Your task to perform on an android device: turn on showing notifications on the lock screen Image 0: 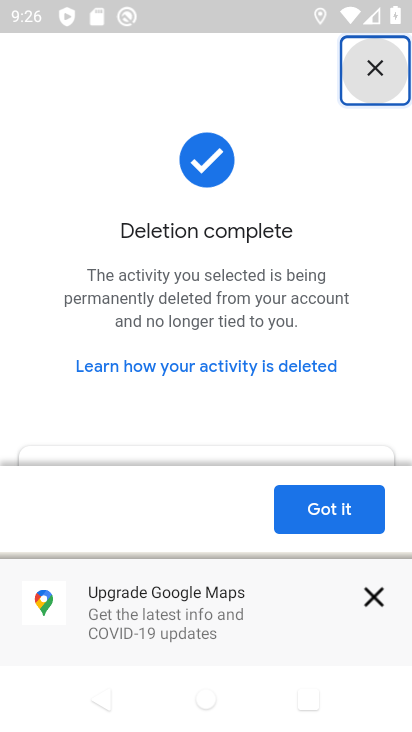
Step 0: press home button
Your task to perform on an android device: turn on showing notifications on the lock screen Image 1: 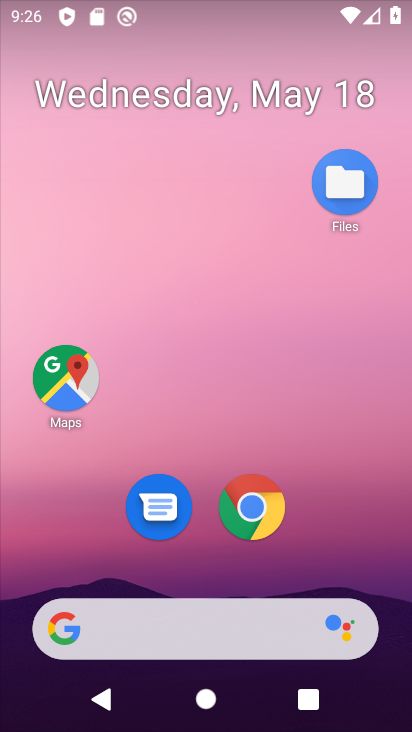
Step 1: drag from (357, 528) to (308, 161)
Your task to perform on an android device: turn on showing notifications on the lock screen Image 2: 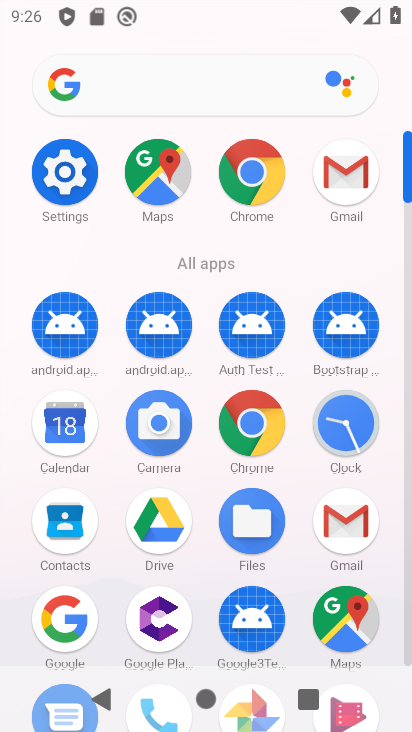
Step 2: click (69, 179)
Your task to perform on an android device: turn on showing notifications on the lock screen Image 3: 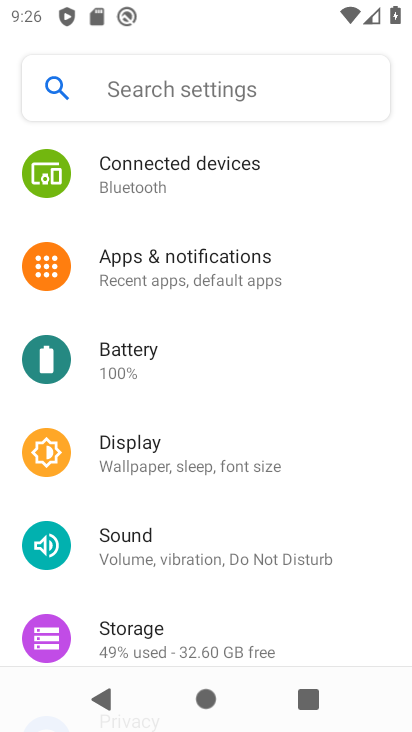
Step 3: click (126, 272)
Your task to perform on an android device: turn on showing notifications on the lock screen Image 4: 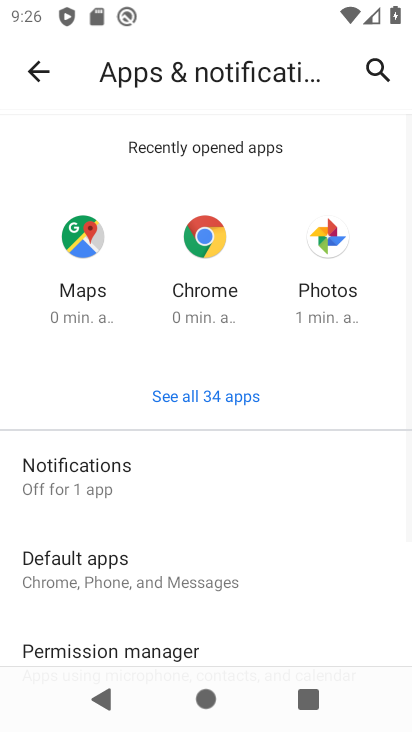
Step 4: drag from (189, 504) to (234, 245)
Your task to perform on an android device: turn on showing notifications on the lock screen Image 5: 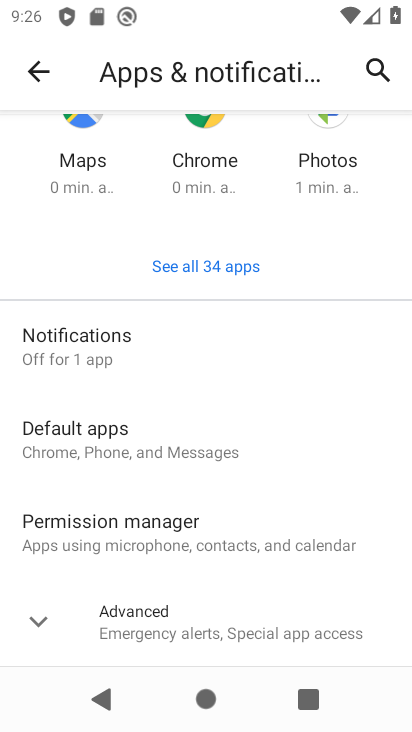
Step 5: click (120, 358)
Your task to perform on an android device: turn on showing notifications on the lock screen Image 6: 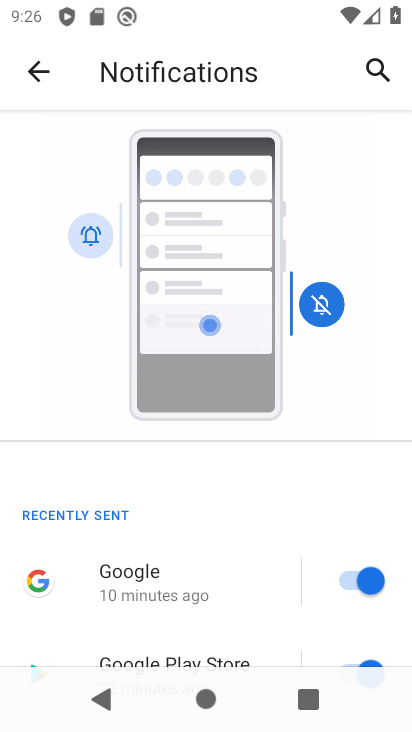
Step 6: drag from (262, 577) to (310, 108)
Your task to perform on an android device: turn on showing notifications on the lock screen Image 7: 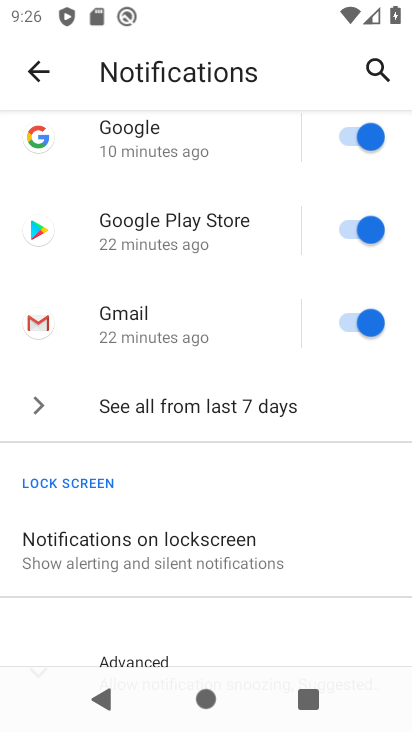
Step 7: click (182, 566)
Your task to perform on an android device: turn on showing notifications on the lock screen Image 8: 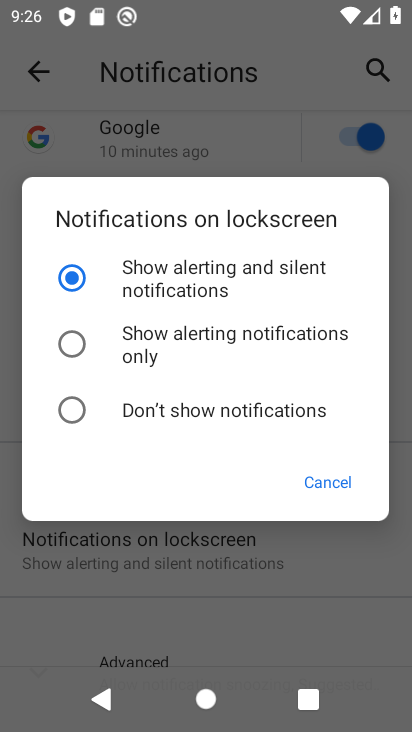
Step 8: click (209, 339)
Your task to perform on an android device: turn on showing notifications on the lock screen Image 9: 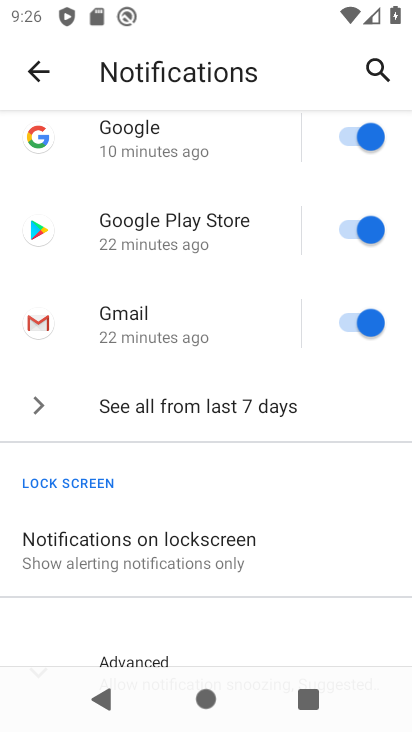
Step 9: task complete